Your task to perform on an android device: toggle location history Image 0: 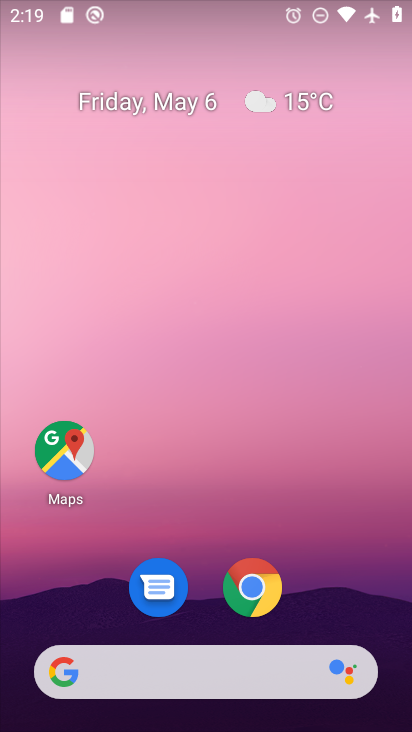
Step 0: click (277, 586)
Your task to perform on an android device: toggle location history Image 1: 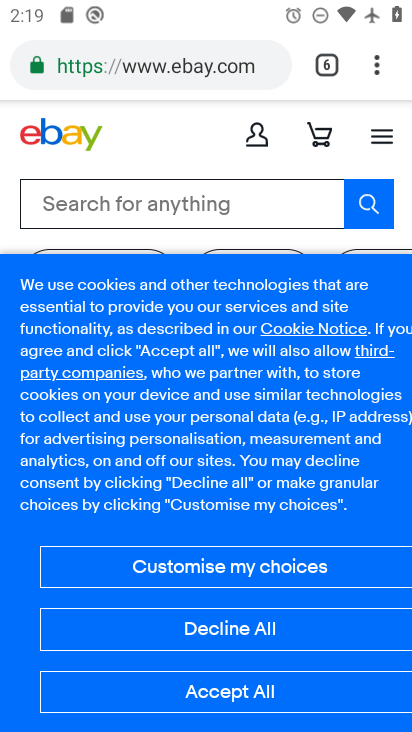
Step 1: click (373, 64)
Your task to perform on an android device: toggle location history Image 2: 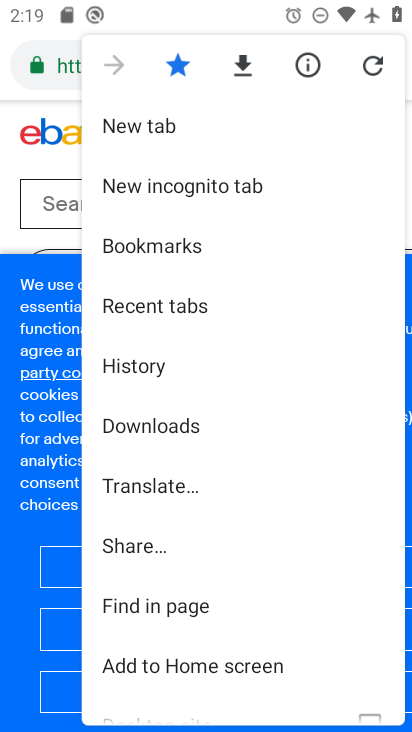
Step 2: drag from (204, 634) to (163, 163)
Your task to perform on an android device: toggle location history Image 3: 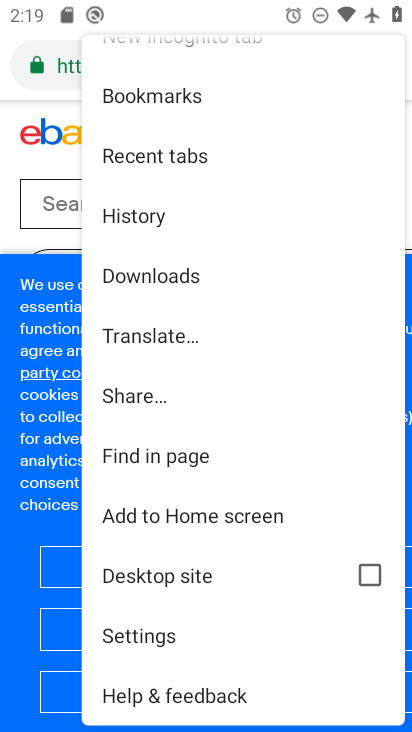
Step 3: press home button
Your task to perform on an android device: toggle location history Image 4: 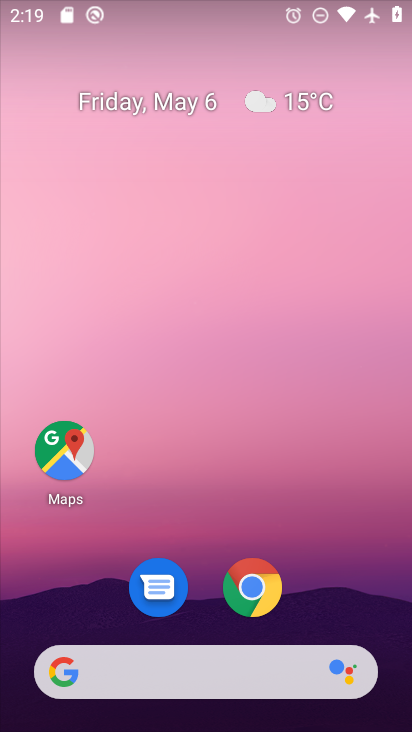
Step 4: drag from (344, 535) to (227, 19)
Your task to perform on an android device: toggle location history Image 5: 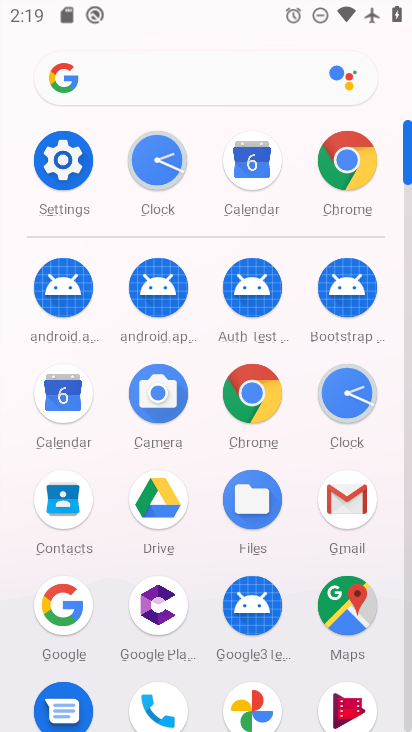
Step 5: click (79, 158)
Your task to perform on an android device: toggle location history Image 6: 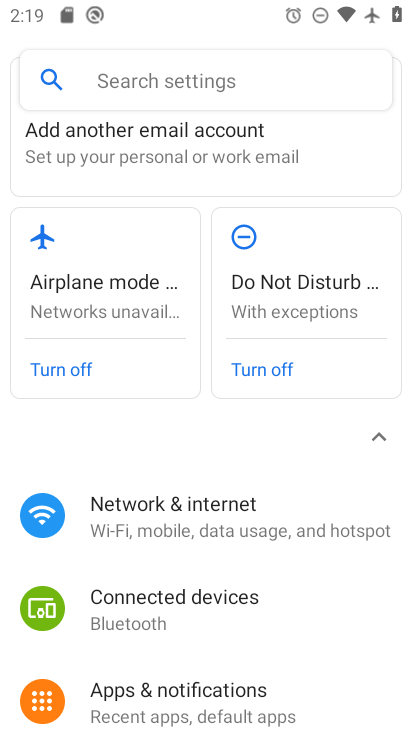
Step 6: drag from (226, 631) to (233, 225)
Your task to perform on an android device: toggle location history Image 7: 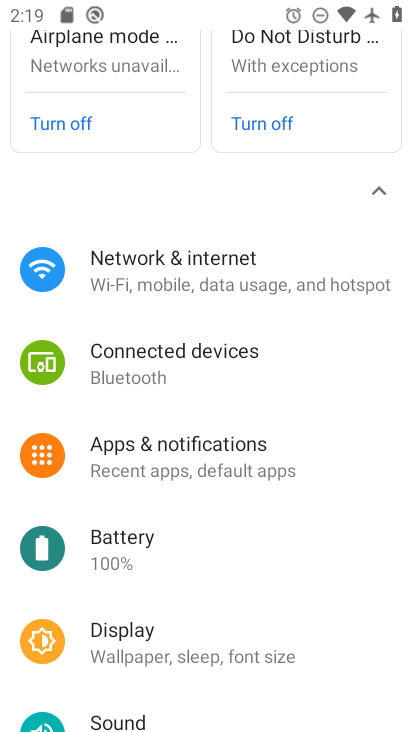
Step 7: drag from (195, 577) to (241, 148)
Your task to perform on an android device: toggle location history Image 8: 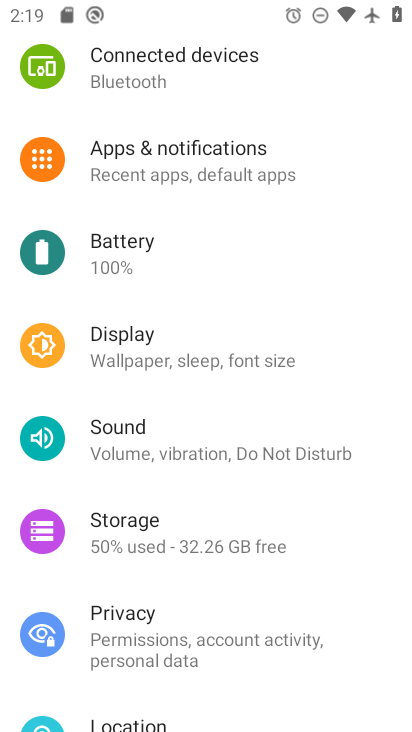
Step 8: drag from (210, 497) to (226, 246)
Your task to perform on an android device: toggle location history Image 9: 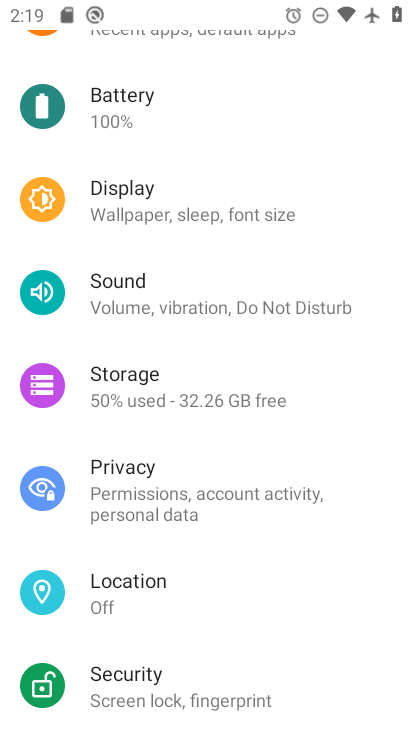
Step 9: click (145, 598)
Your task to perform on an android device: toggle location history Image 10: 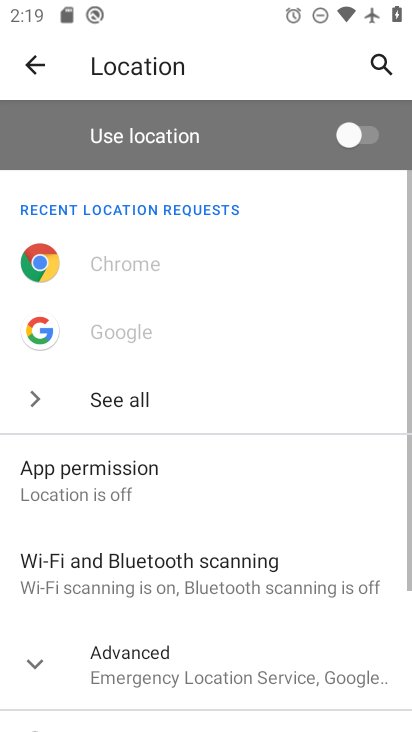
Step 10: drag from (238, 549) to (224, 134)
Your task to perform on an android device: toggle location history Image 11: 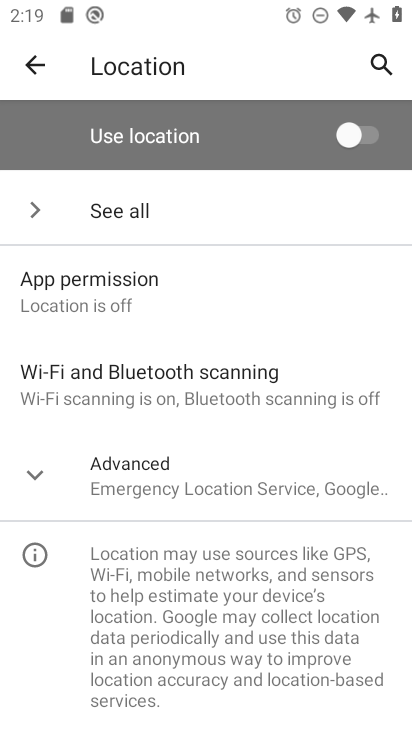
Step 11: click (223, 466)
Your task to perform on an android device: toggle location history Image 12: 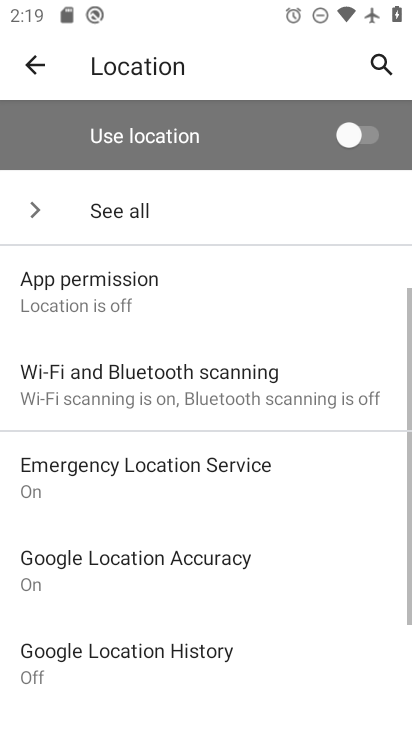
Step 12: drag from (196, 593) to (233, 303)
Your task to perform on an android device: toggle location history Image 13: 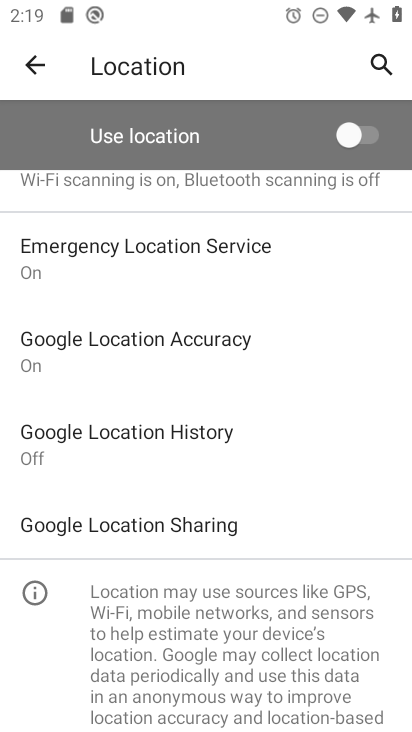
Step 13: click (196, 557)
Your task to perform on an android device: toggle location history Image 14: 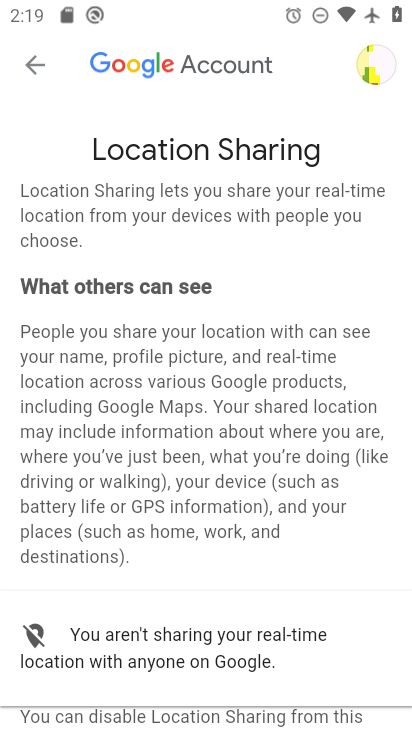
Step 14: click (32, 62)
Your task to perform on an android device: toggle location history Image 15: 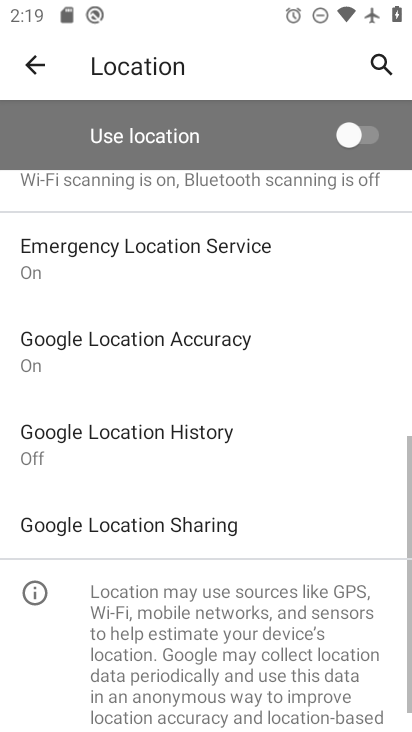
Step 15: click (205, 428)
Your task to perform on an android device: toggle location history Image 16: 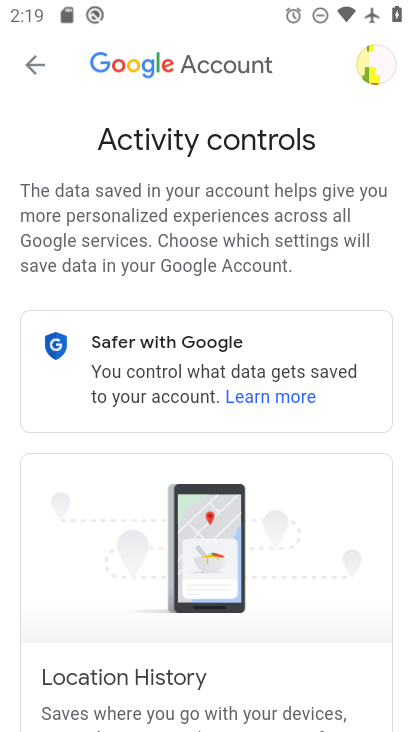
Step 16: drag from (270, 578) to (253, 231)
Your task to perform on an android device: toggle location history Image 17: 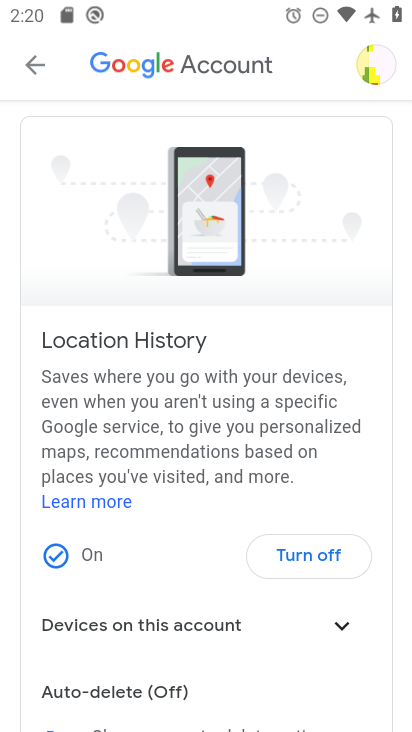
Step 17: click (304, 558)
Your task to perform on an android device: toggle location history Image 18: 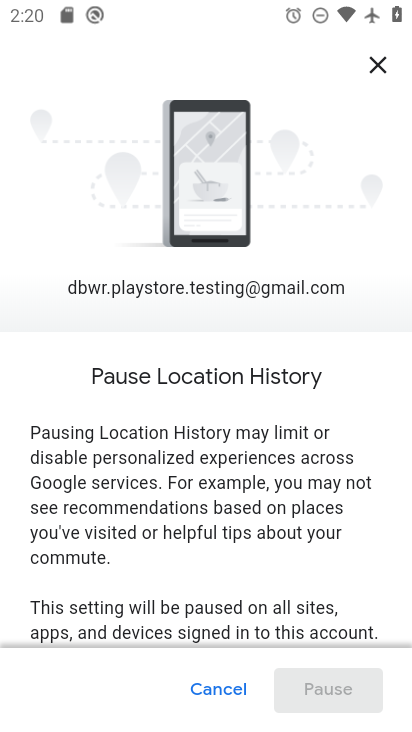
Step 18: drag from (293, 585) to (275, 83)
Your task to perform on an android device: toggle location history Image 19: 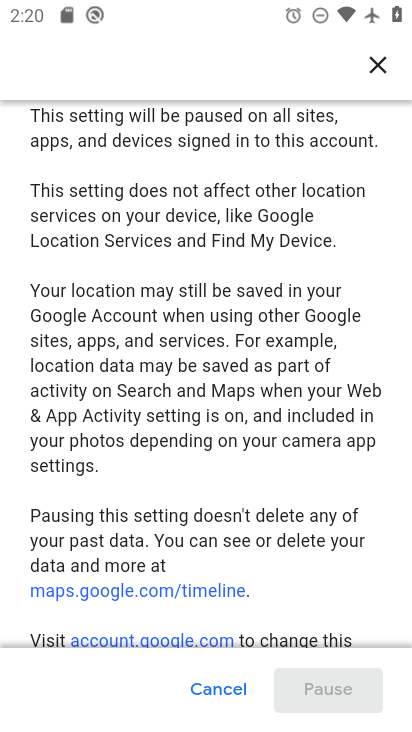
Step 19: drag from (239, 476) to (234, 79)
Your task to perform on an android device: toggle location history Image 20: 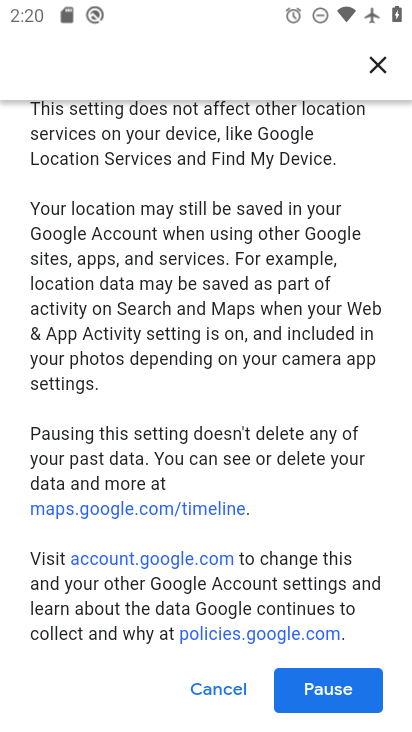
Step 20: click (335, 693)
Your task to perform on an android device: toggle location history Image 21: 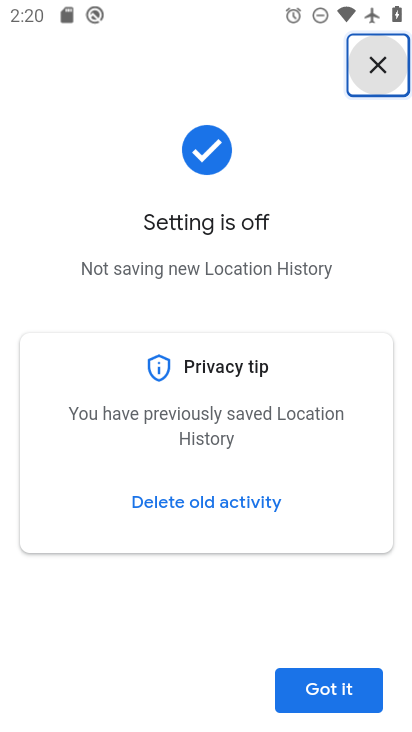
Step 21: click (337, 688)
Your task to perform on an android device: toggle location history Image 22: 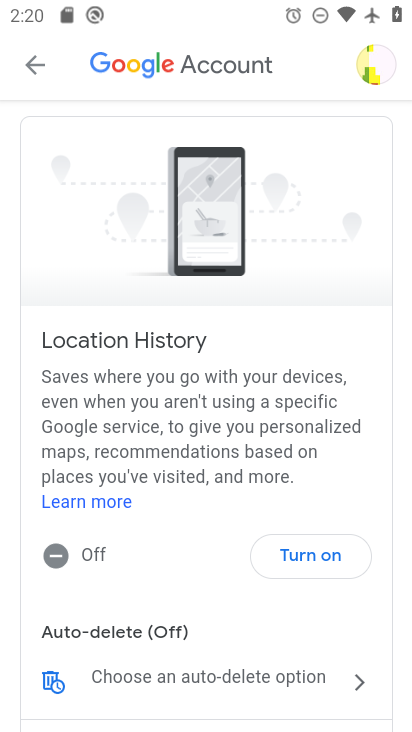
Step 22: task complete